Your task to perform on an android device: Open Chrome and go to settings Image 0: 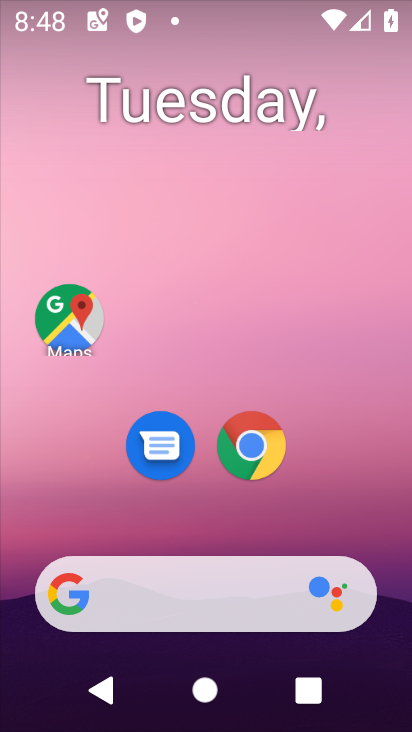
Step 0: click (247, 445)
Your task to perform on an android device: Open Chrome and go to settings Image 1: 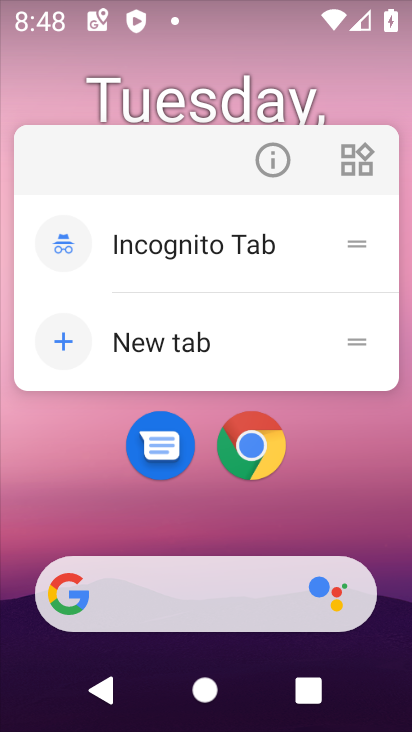
Step 1: click (247, 443)
Your task to perform on an android device: Open Chrome and go to settings Image 2: 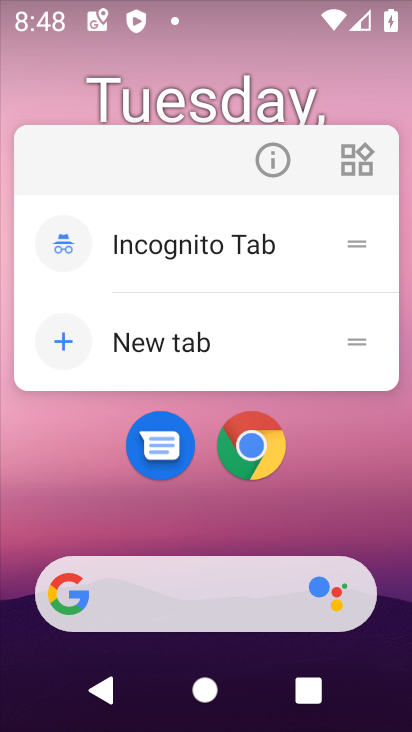
Step 2: click (247, 443)
Your task to perform on an android device: Open Chrome and go to settings Image 3: 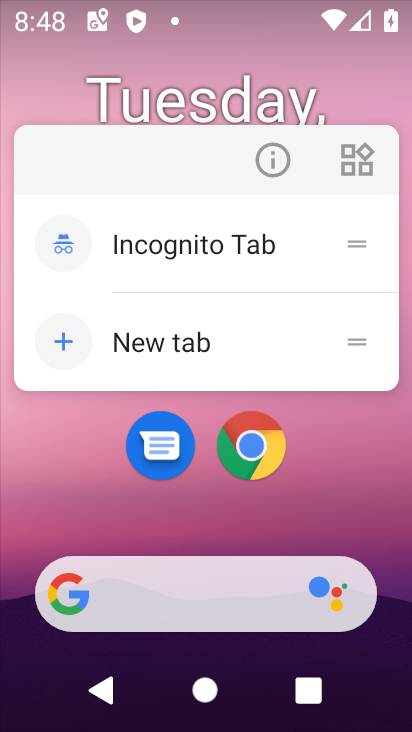
Step 3: click (247, 443)
Your task to perform on an android device: Open Chrome and go to settings Image 4: 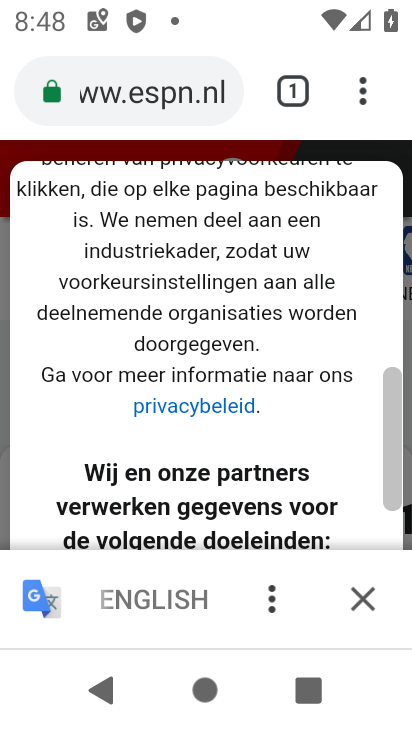
Step 4: click (356, 592)
Your task to perform on an android device: Open Chrome and go to settings Image 5: 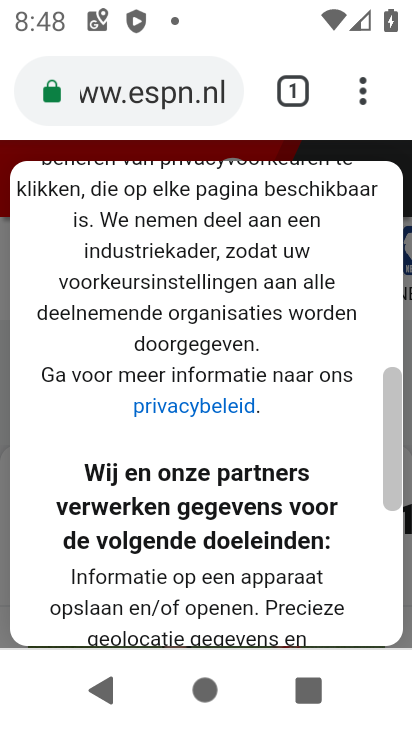
Step 5: click (359, 95)
Your task to perform on an android device: Open Chrome and go to settings Image 6: 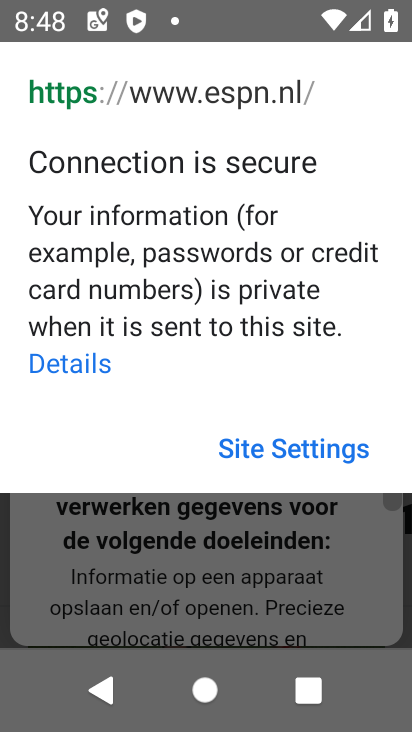
Step 6: click (251, 443)
Your task to perform on an android device: Open Chrome and go to settings Image 7: 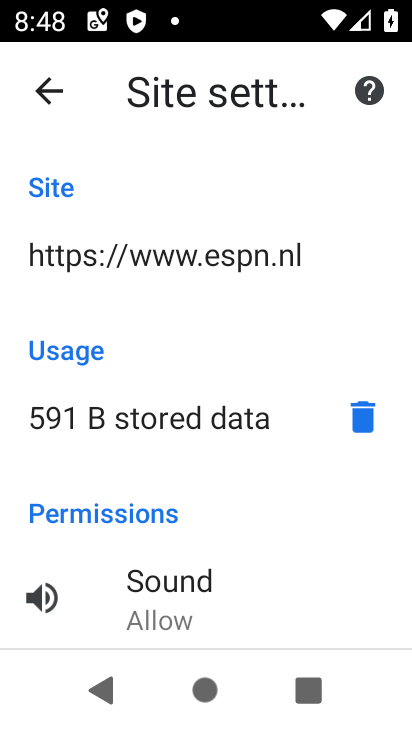
Step 7: click (57, 94)
Your task to perform on an android device: Open Chrome and go to settings Image 8: 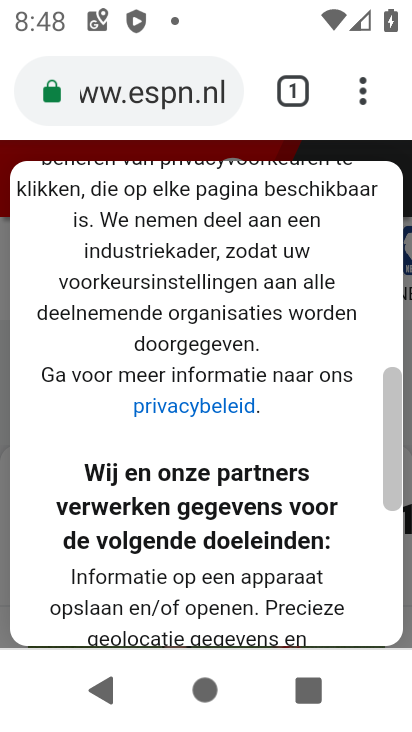
Step 8: task complete